Your task to perform on an android device: Open sound settings Image 0: 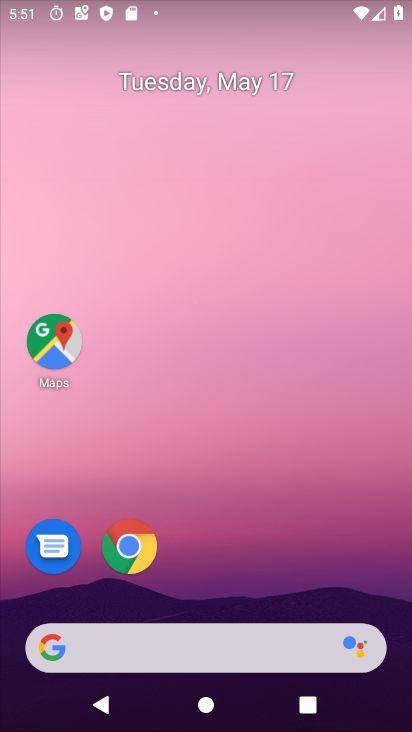
Step 0: drag from (205, 552) to (122, 63)
Your task to perform on an android device: Open sound settings Image 1: 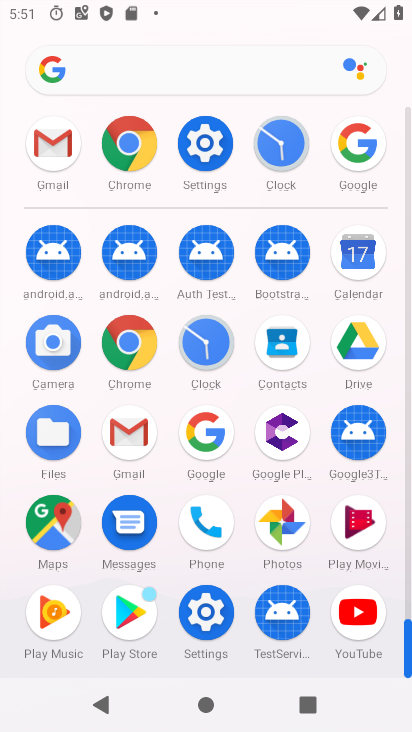
Step 1: click (180, 646)
Your task to perform on an android device: Open sound settings Image 2: 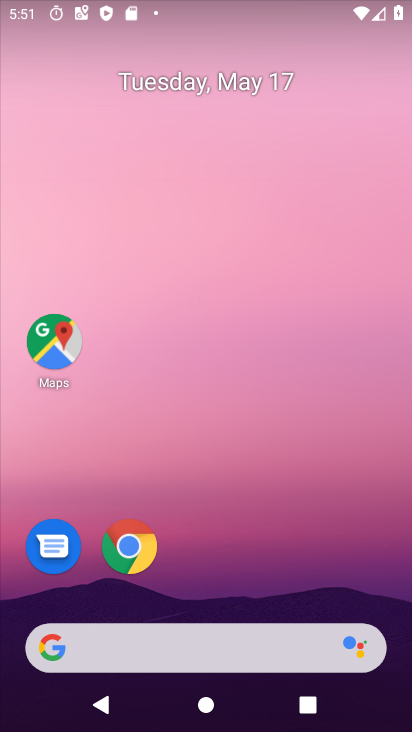
Step 2: click (201, 624)
Your task to perform on an android device: Open sound settings Image 3: 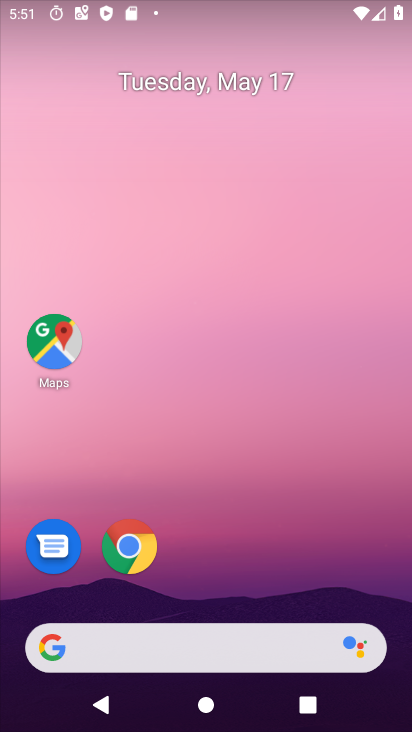
Step 3: drag from (196, 528) to (217, 32)
Your task to perform on an android device: Open sound settings Image 4: 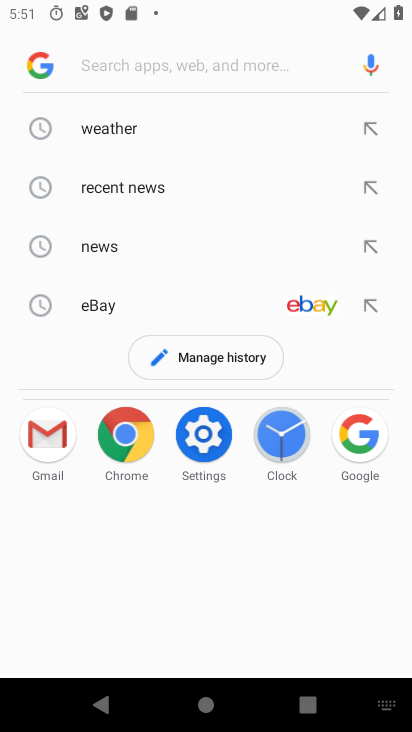
Step 4: click (207, 434)
Your task to perform on an android device: Open sound settings Image 5: 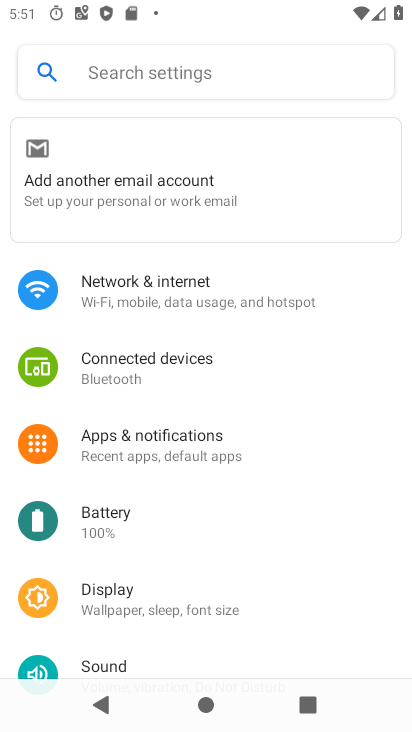
Step 5: click (110, 661)
Your task to perform on an android device: Open sound settings Image 6: 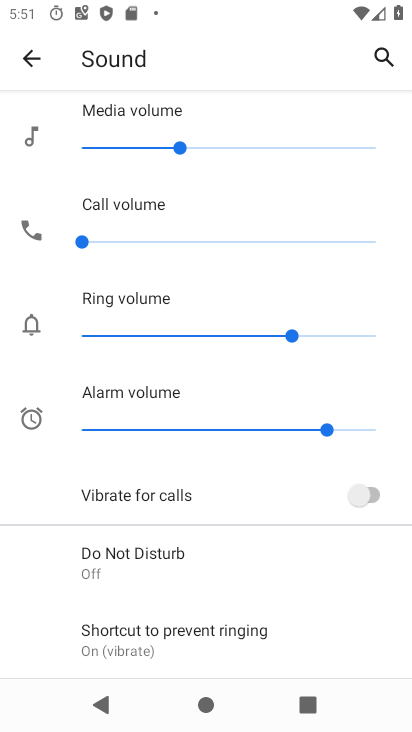
Step 6: task complete